Your task to perform on an android device: toggle notification dots Image 0: 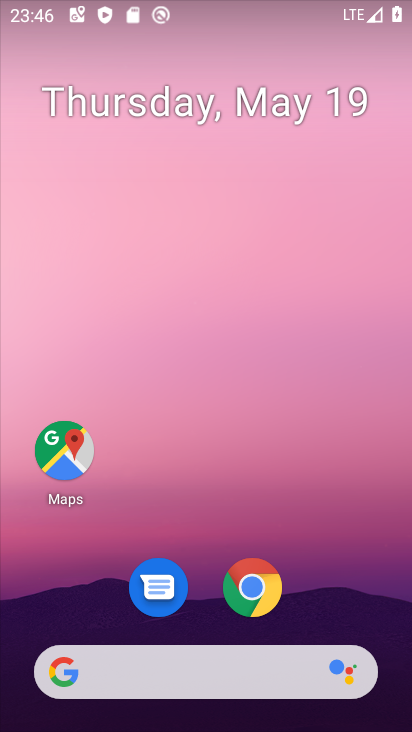
Step 0: drag from (229, 699) to (302, 148)
Your task to perform on an android device: toggle notification dots Image 1: 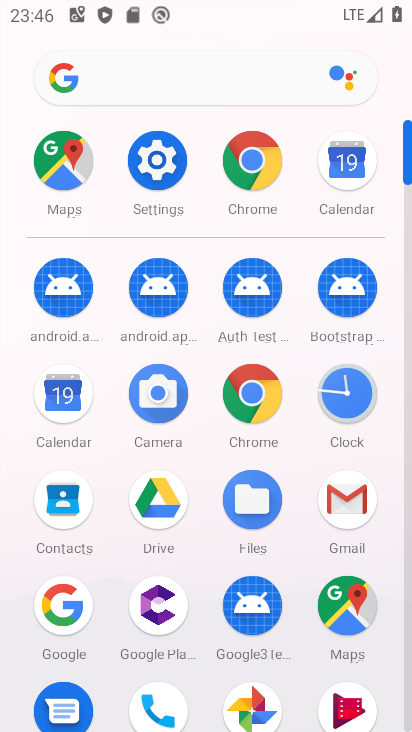
Step 1: drag from (202, 561) to (202, 394)
Your task to perform on an android device: toggle notification dots Image 2: 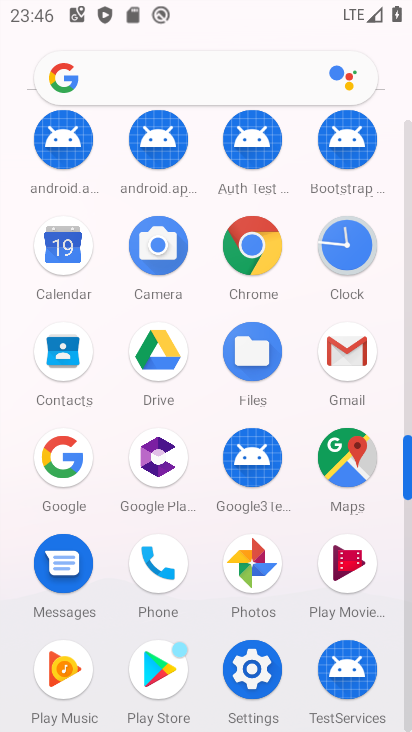
Step 2: click (255, 664)
Your task to perform on an android device: toggle notification dots Image 3: 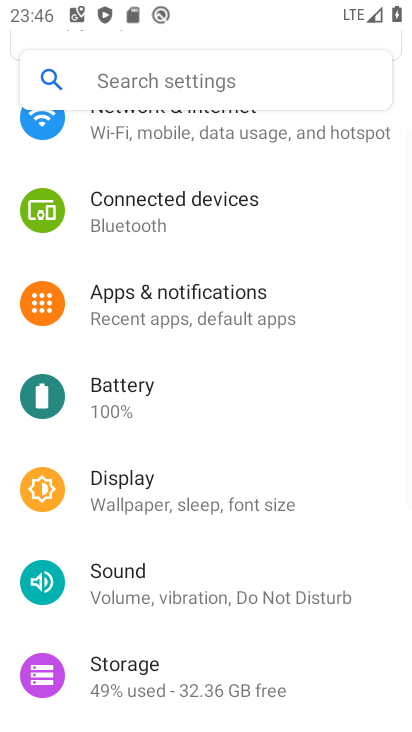
Step 3: click (142, 88)
Your task to perform on an android device: toggle notification dots Image 4: 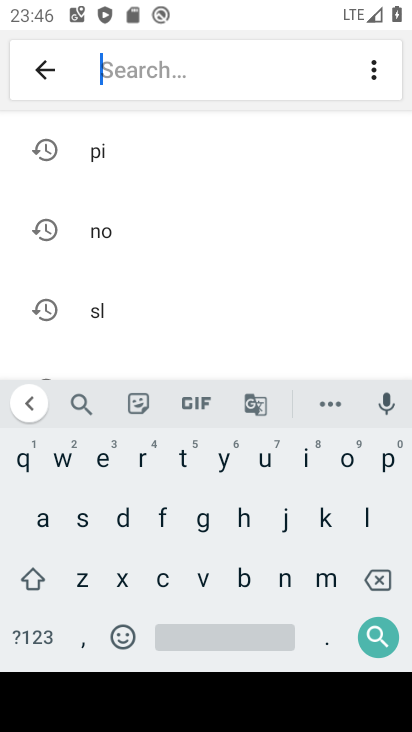
Step 4: click (117, 517)
Your task to perform on an android device: toggle notification dots Image 5: 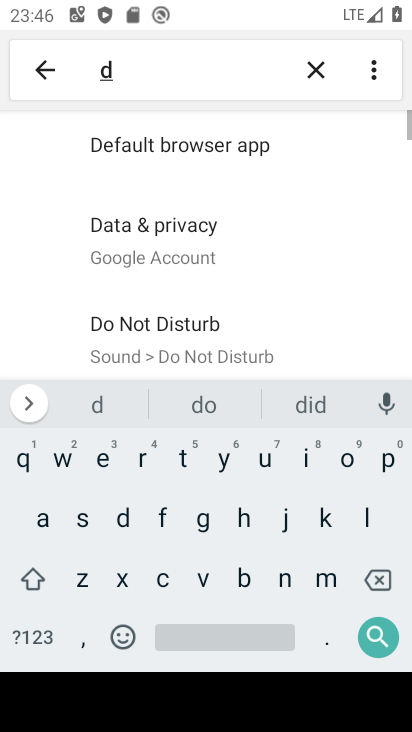
Step 5: click (347, 450)
Your task to perform on an android device: toggle notification dots Image 6: 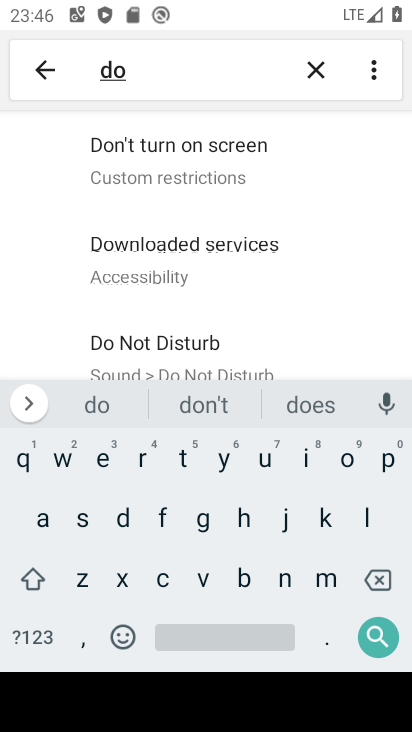
Step 6: click (180, 457)
Your task to perform on an android device: toggle notification dots Image 7: 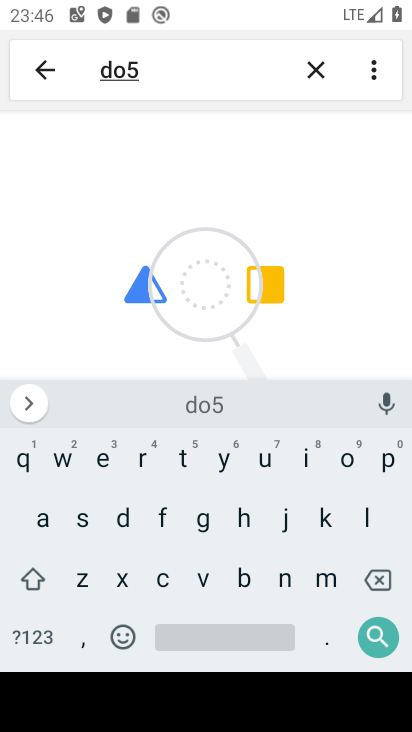
Step 7: click (374, 591)
Your task to perform on an android device: toggle notification dots Image 8: 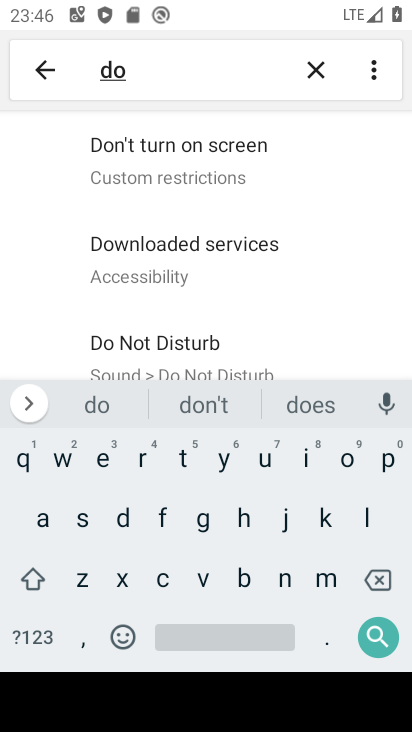
Step 8: click (177, 470)
Your task to perform on an android device: toggle notification dots Image 9: 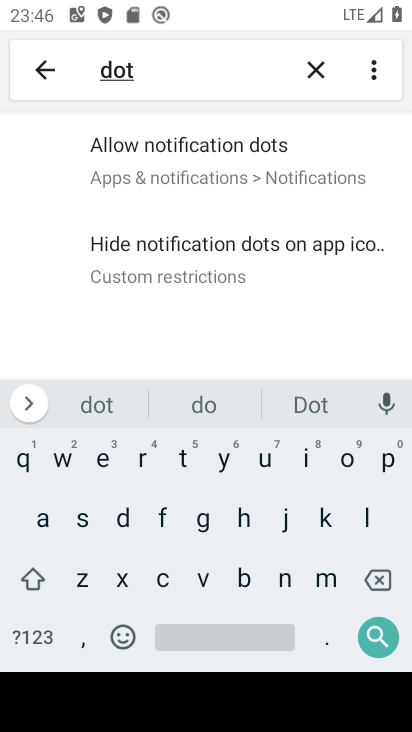
Step 9: click (203, 161)
Your task to perform on an android device: toggle notification dots Image 10: 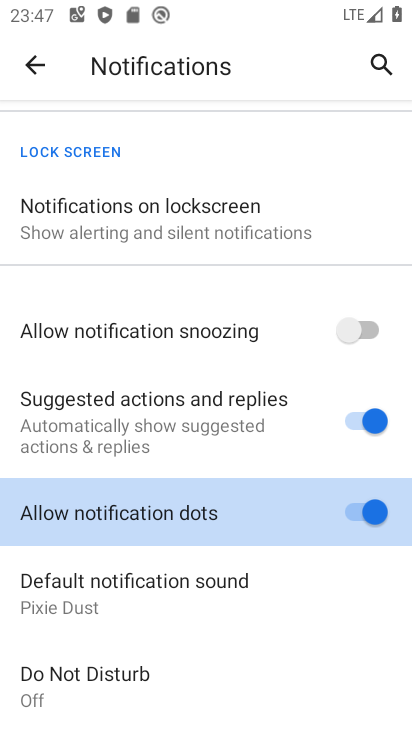
Step 10: task complete